Your task to perform on an android device: Open Android settings Image 0: 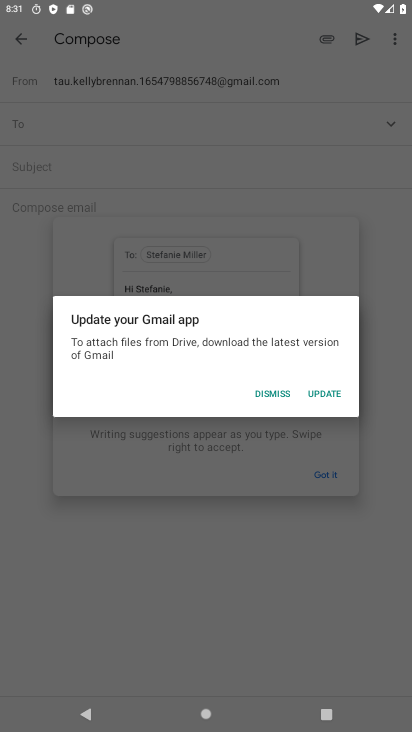
Step 0: press home button
Your task to perform on an android device: Open Android settings Image 1: 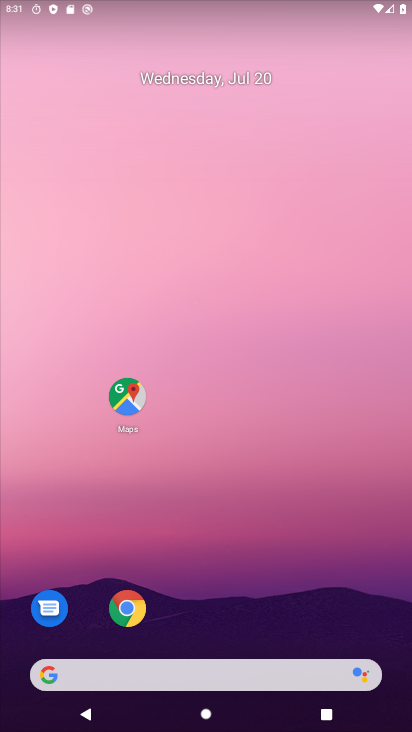
Step 1: drag from (238, 606) to (270, 76)
Your task to perform on an android device: Open Android settings Image 2: 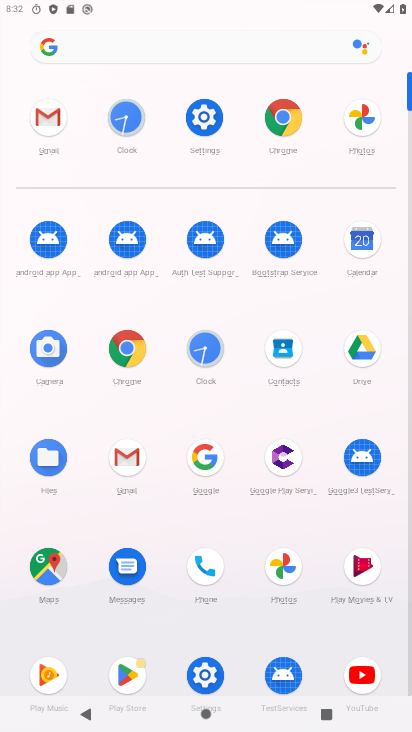
Step 2: click (200, 130)
Your task to perform on an android device: Open Android settings Image 3: 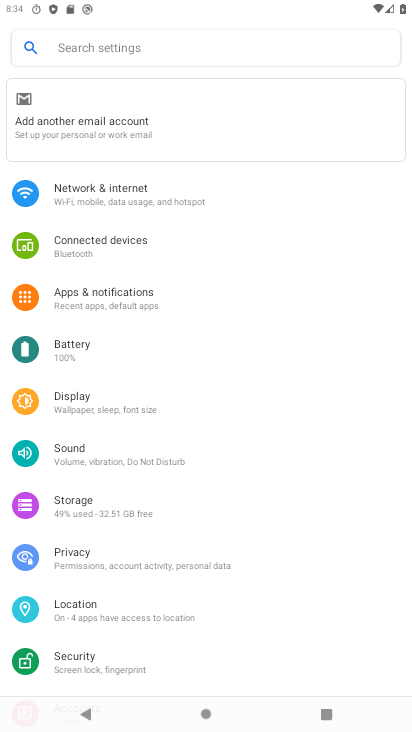
Step 3: task complete